Your task to perform on an android device: turn off location history Image 0: 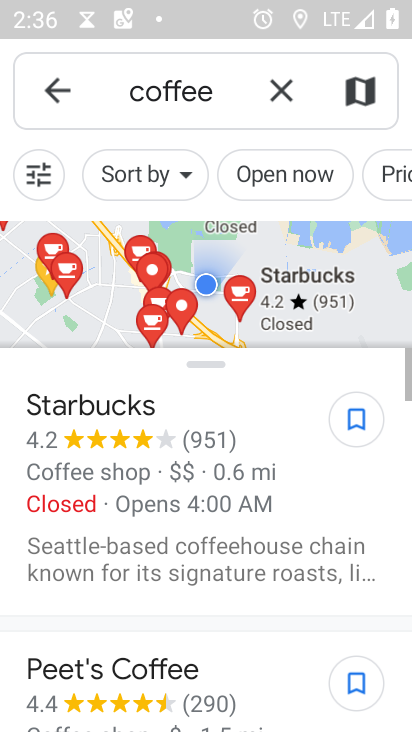
Step 0: press back button
Your task to perform on an android device: turn off location history Image 1: 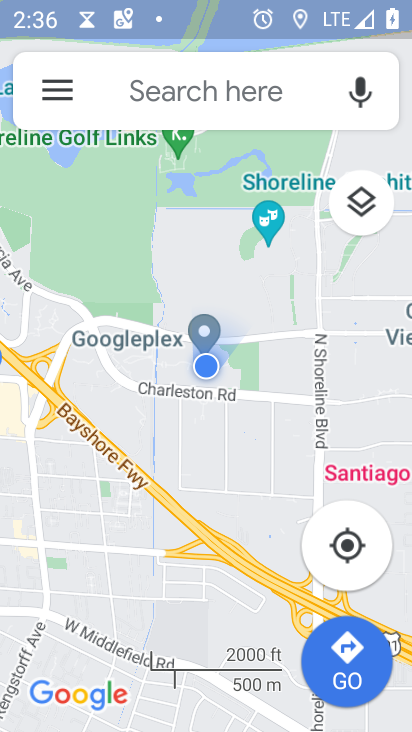
Step 1: press back button
Your task to perform on an android device: turn off location history Image 2: 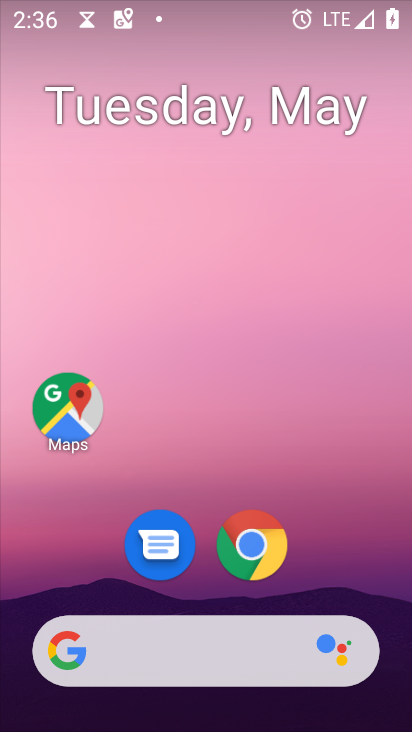
Step 2: drag from (367, 530) to (217, 13)
Your task to perform on an android device: turn off location history Image 3: 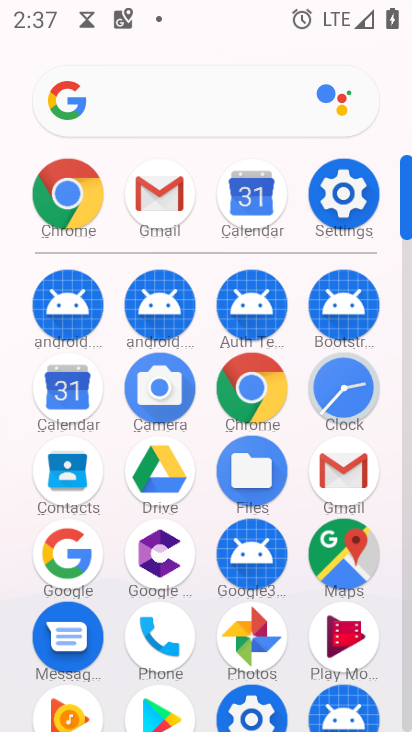
Step 3: click (341, 190)
Your task to perform on an android device: turn off location history Image 4: 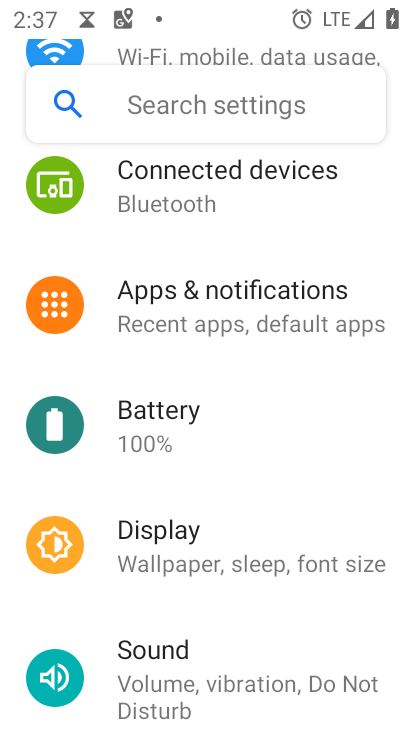
Step 4: drag from (253, 186) to (262, 532)
Your task to perform on an android device: turn off location history Image 5: 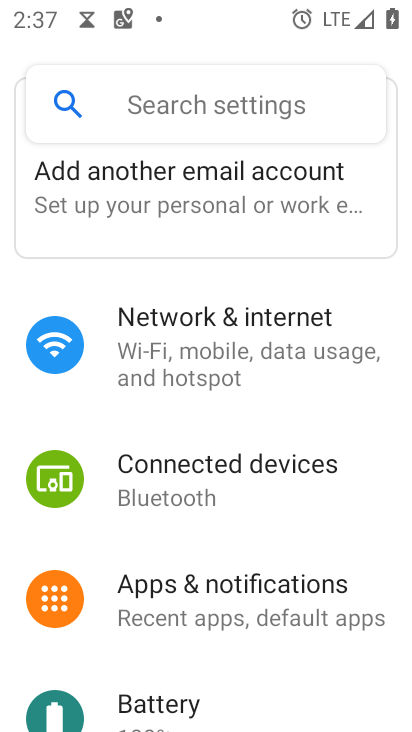
Step 5: drag from (282, 541) to (292, 301)
Your task to perform on an android device: turn off location history Image 6: 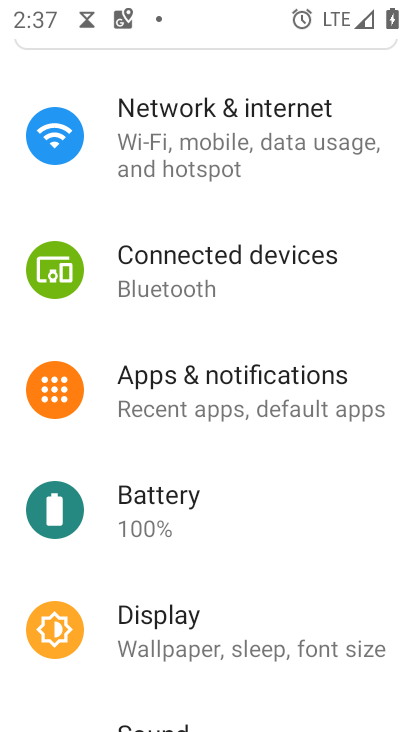
Step 6: drag from (234, 590) to (244, 186)
Your task to perform on an android device: turn off location history Image 7: 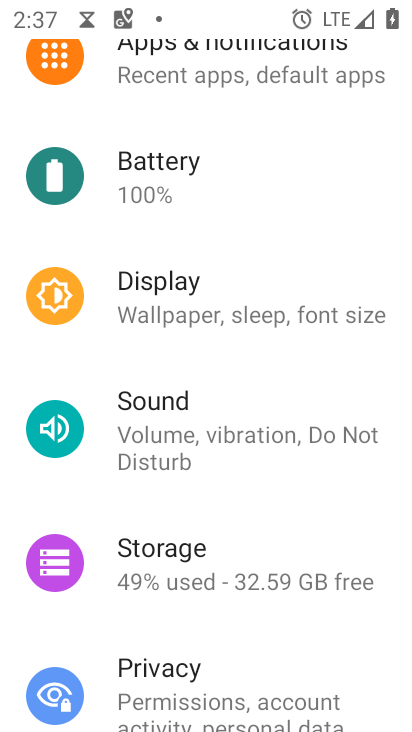
Step 7: drag from (222, 599) to (248, 225)
Your task to perform on an android device: turn off location history Image 8: 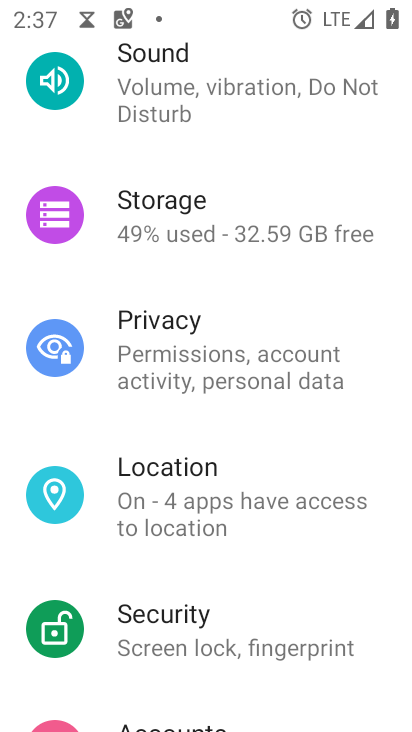
Step 8: click (181, 465)
Your task to perform on an android device: turn off location history Image 9: 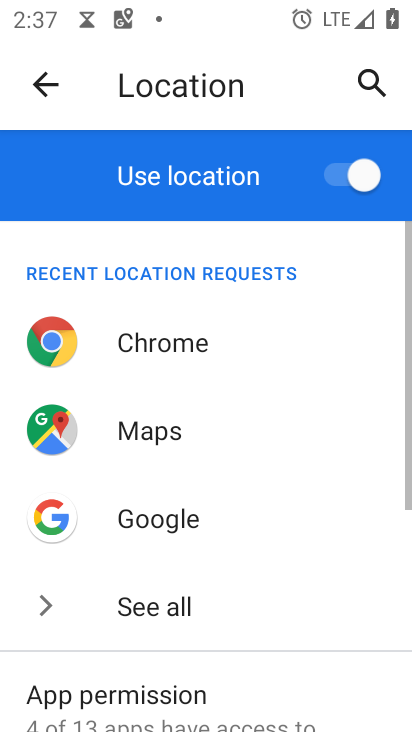
Step 9: drag from (270, 585) to (239, 131)
Your task to perform on an android device: turn off location history Image 10: 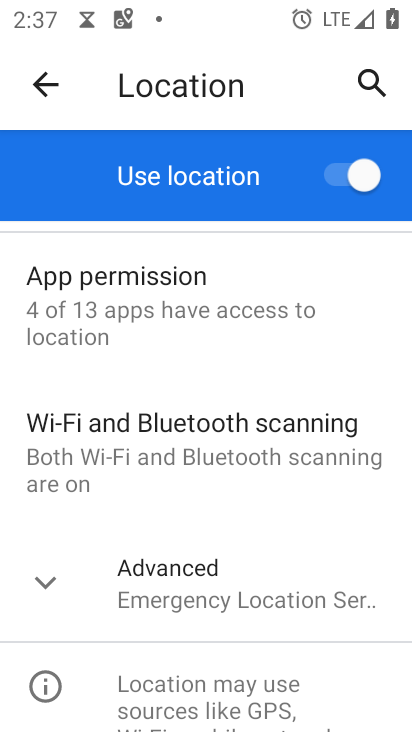
Step 10: click (54, 577)
Your task to perform on an android device: turn off location history Image 11: 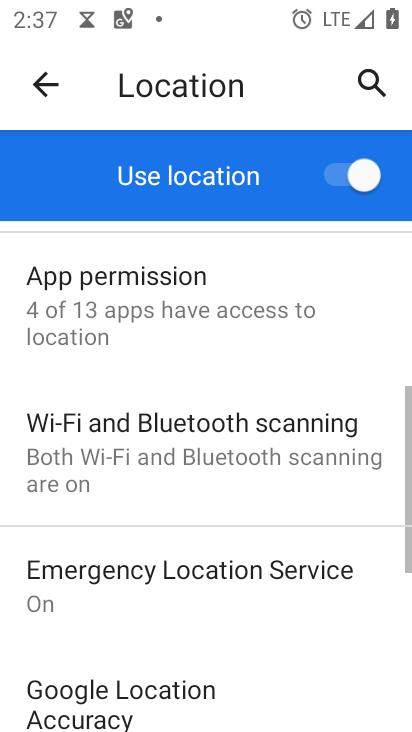
Step 11: drag from (253, 587) to (262, 215)
Your task to perform on an android device: turn off location history Image 12: 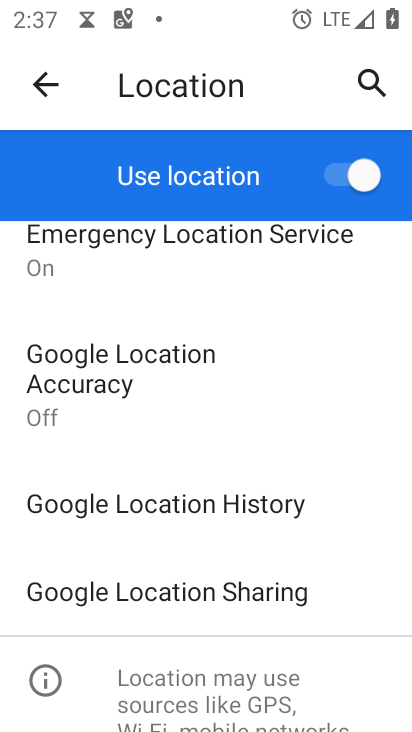
Step 12: click (200, 493)
Your task to perform on an android device: turn off location history Image 13: 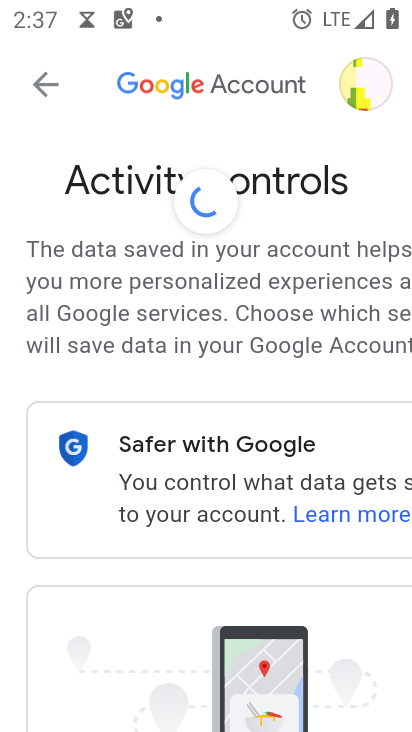
Step 13: drag from (193, 530) to (147, 133)
Your task to perform on an android device: turn off location history Image 14: 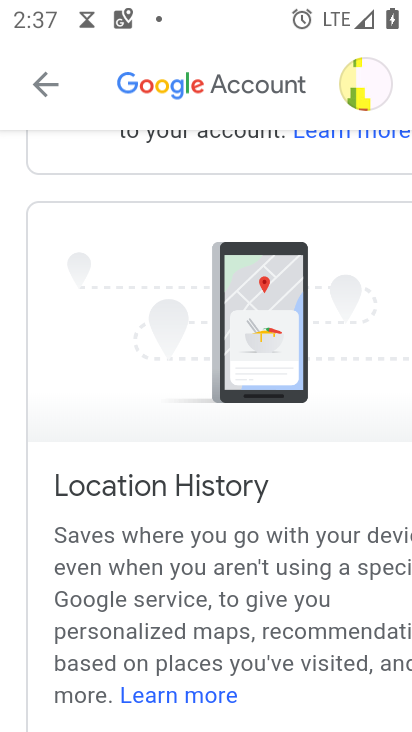
Step 14: drag from (112, 561) to (85, 173)
Your task to perform on an android device: turn off location history Image 15: 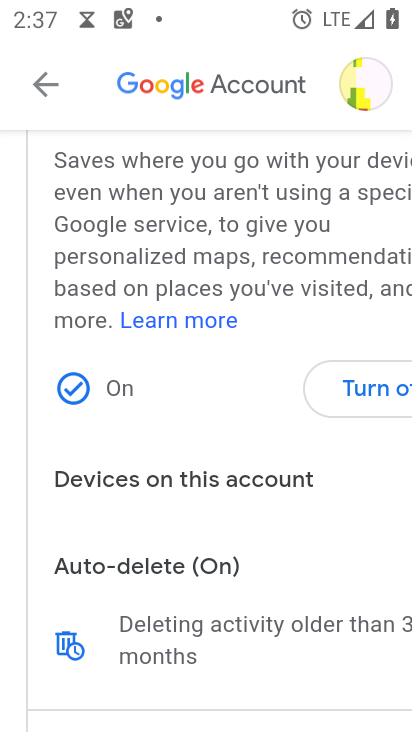
Step 15: click (366, 388)
Your task to perform on an android device: turn off location history Image 16: 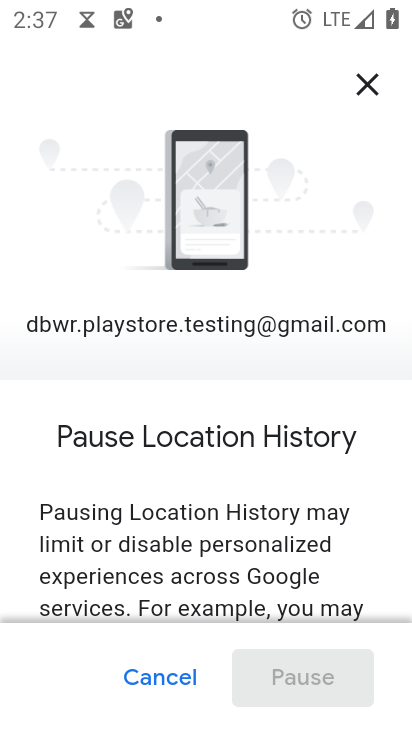
Step 16: drag from (260, 458) to (246, 121)
Your task to perform on an android device: turn off location history Image 17: 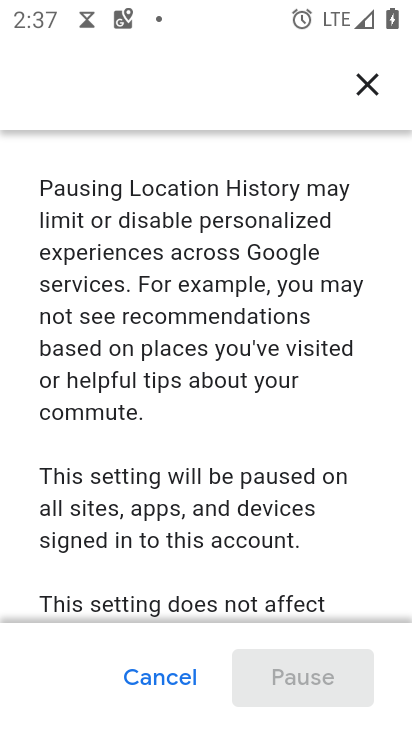
Step 17: drag from (176, 532) to (190, 88)
Your task to perform on an android device: turn off location history Image 18: 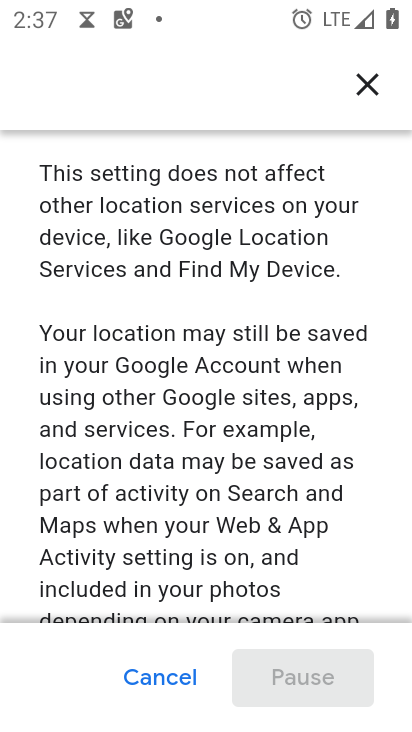
Step 18: drag from (173, 531) to (199, 139)
Your task to perform on an android device: turn off location history Image 19: 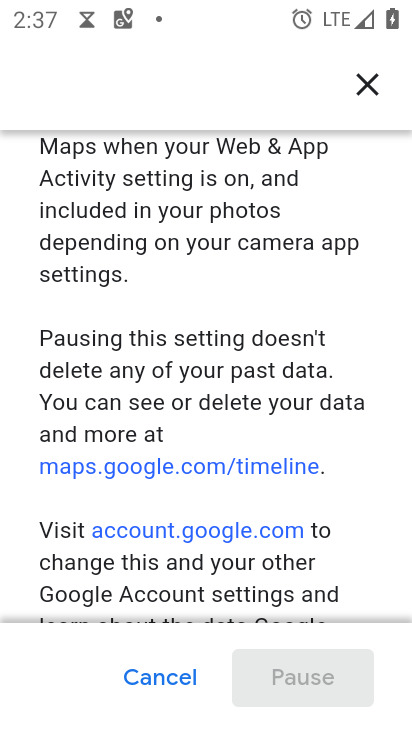
Step 19: drag from (228, 540) to (278, 167)
Your task to perform on an android device: turn off location history Image 20: 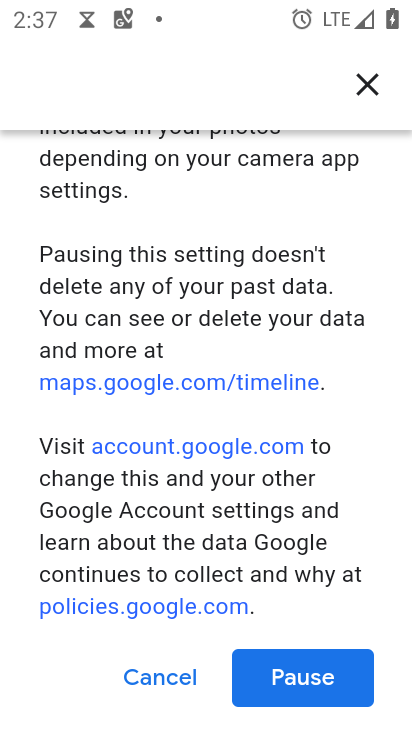
Step 20: click (301, 673)
Your task to perform on an android device: turn off location history Image 21: 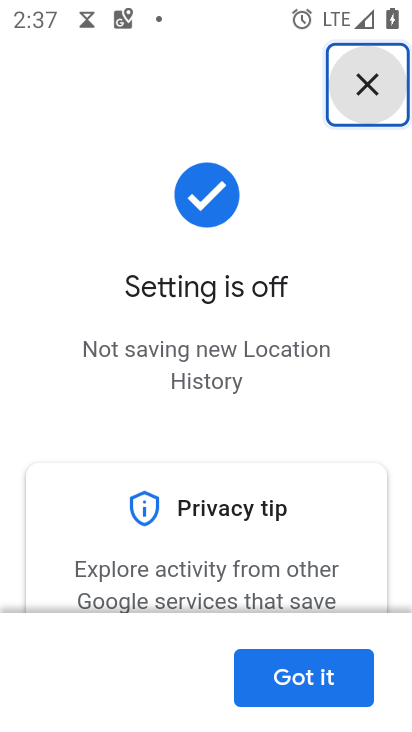
Step 21: click (319, 680)
Your task to perform on an android device: turn off location history Image 22: 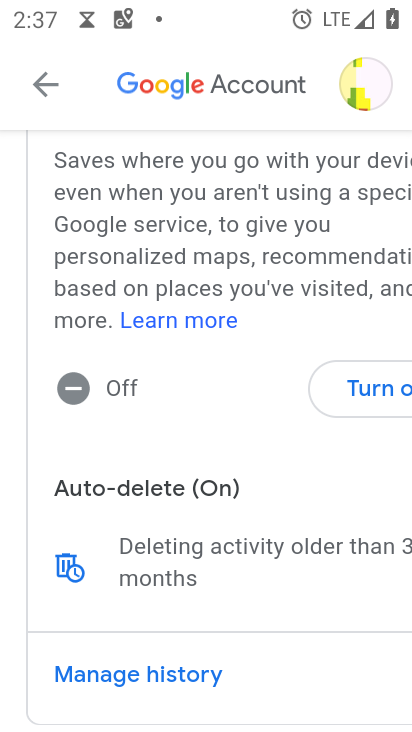
Step 22: task complete